Your task to perform on an android device: Turn on the flashlight Image 0: 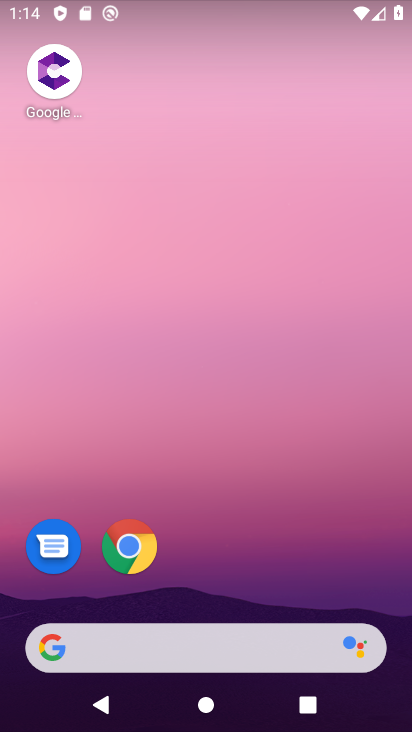
Step 0: drag from (183, 574) to (250, 325)
Your task to perform on an android device: Turn on the flashlight Image 1: 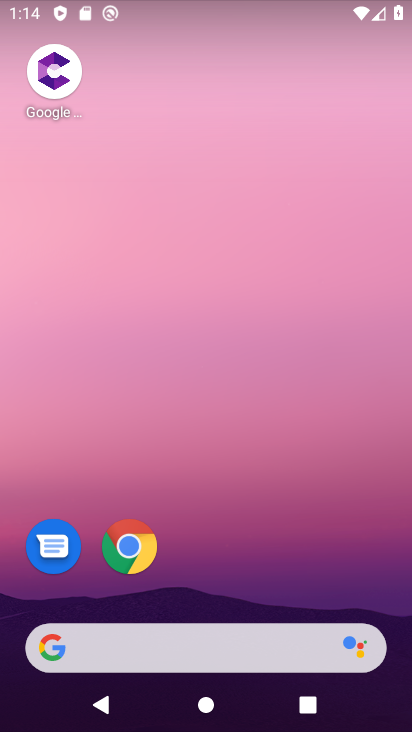
Step 1: drag from (166, 602) to (304, 242)
Your task to perform on an android device: Turn on the flashlight Image 2: 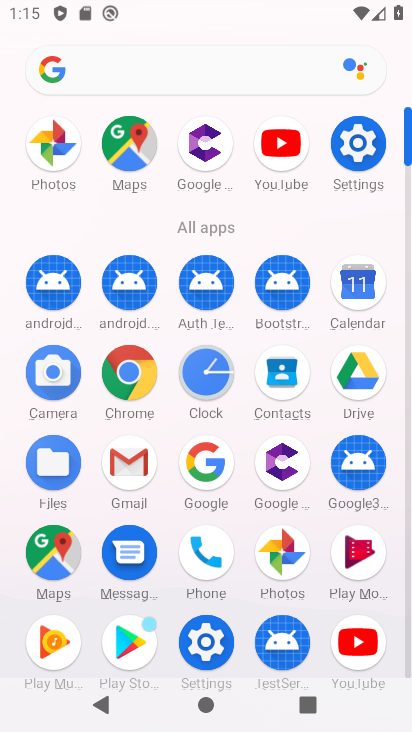
Step 2: click (212, 641)
Your task to perform on an android device: Turn on the flashlight Image 3: 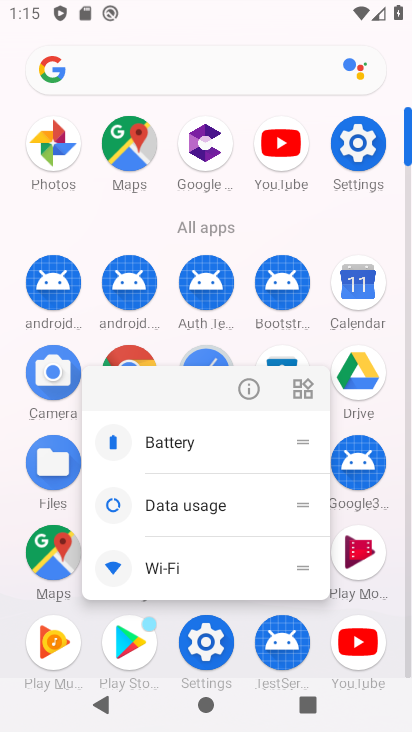
Step 3: click (252, 396)
Your task to perform on an android device: Turn on the flashlight Image 4: 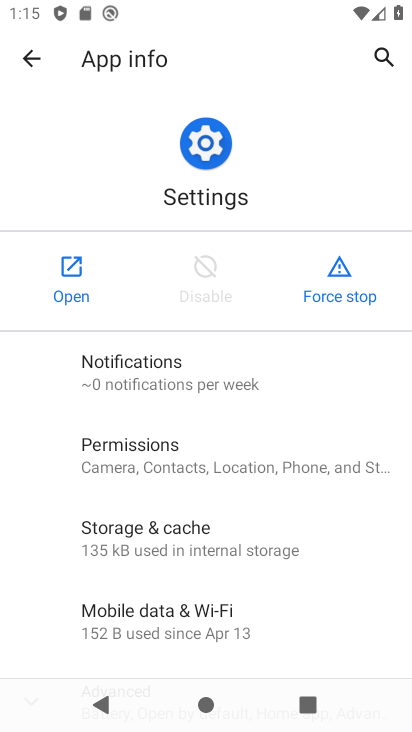
Step 4: click (71, 292)
Your task to perform on an android device: Turn on the flashlight Image 5: 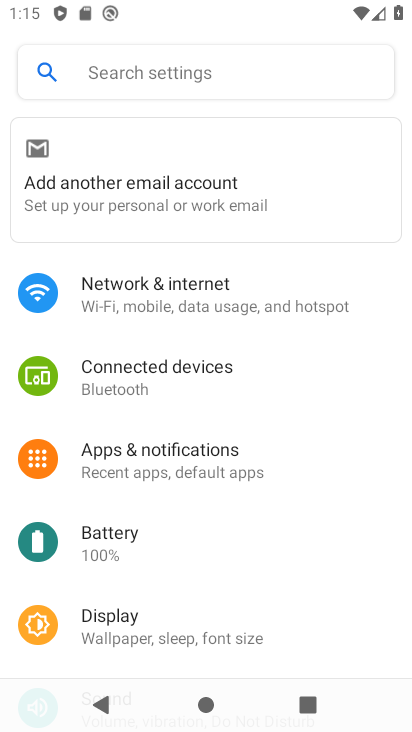
Step 5: click (206, 77)
Your task to perform on an android device: Turn on the flashlight Image 6: 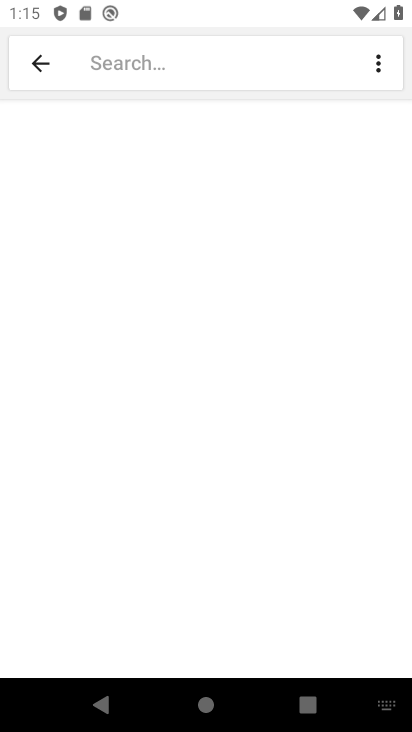
Step 6: type "flashlight"
Your task to perform on an android device: Turn on the flashlight Image 7: 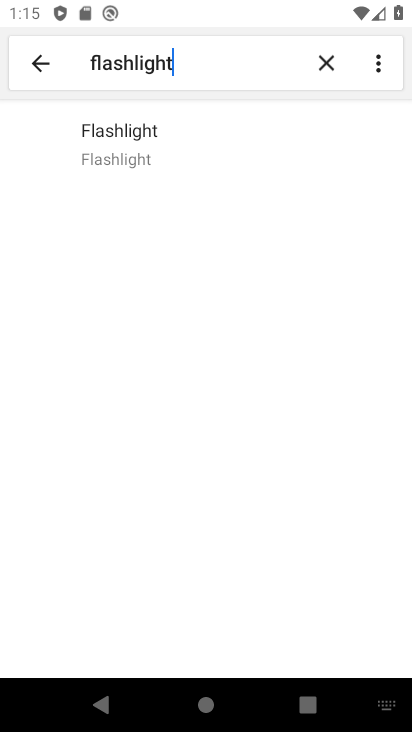
Step 7: click (191, 147)
Your task to perform on an android device: Turn on the flashlight Image 8: 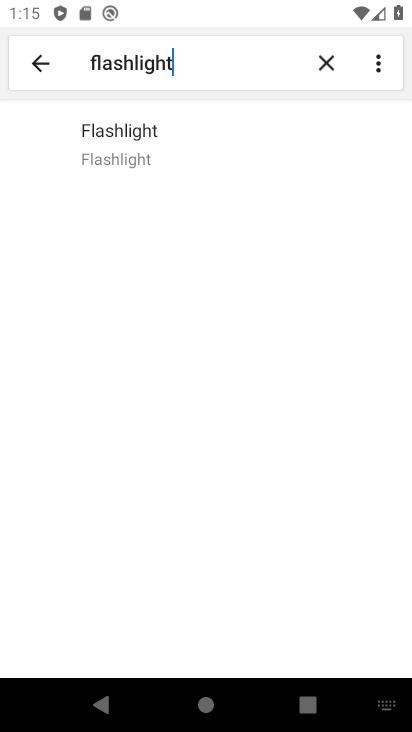
Step 8: click (180, 147)
Your task to perform on an android device: Turn on the flashlight Image 9: 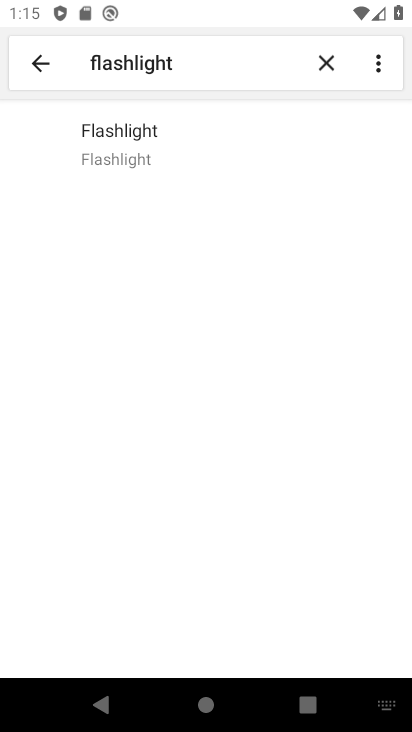
Step 9: click (195, 149)
Your task to perform on an android device: Turn on the flashlight Image 10: 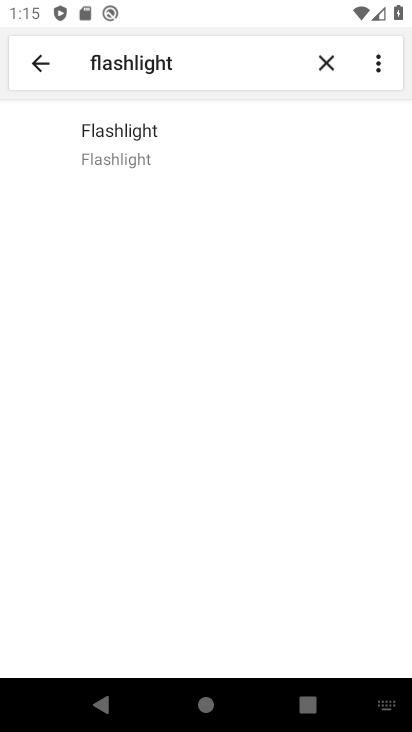
Step 10: click (195, 149)
Your task to perform on an android device: Turn on the flashlight Image 11: 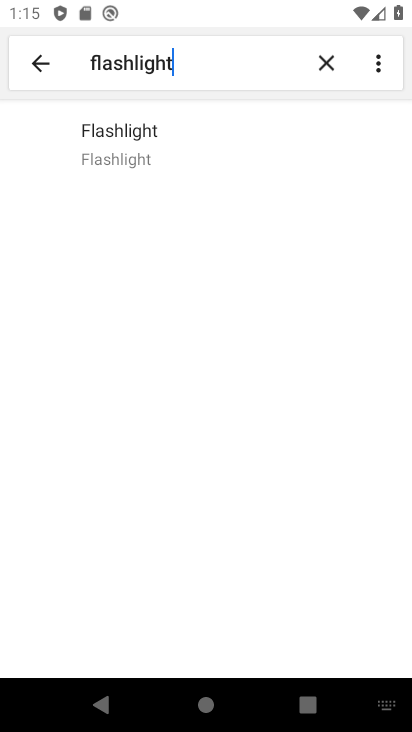
Step 11: click (197, 151)
Your task to perform on an android device: Turn on the flashlight Image 12: 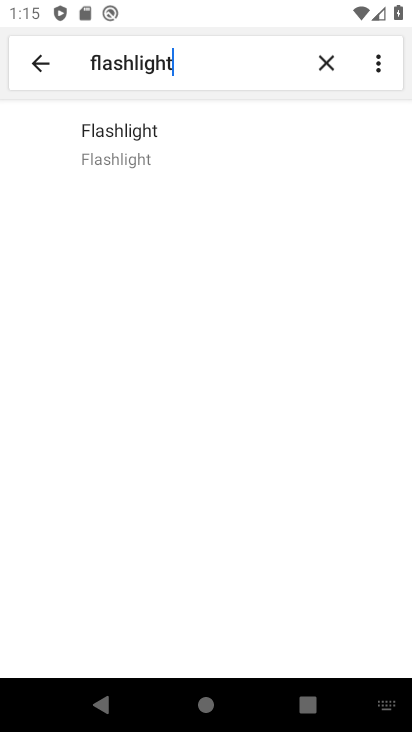
Step 12: task complete